Your task to perform on an android device: change the clock display to digital Image 0: 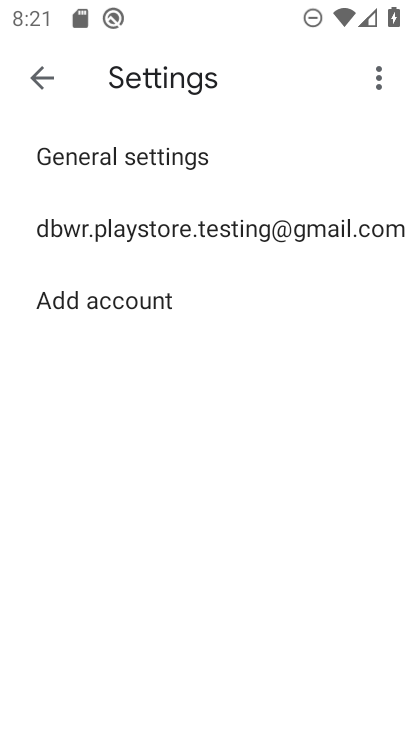
Step 0: press home button
Your task to perform on an android device: change the clock display to digital Image 1: 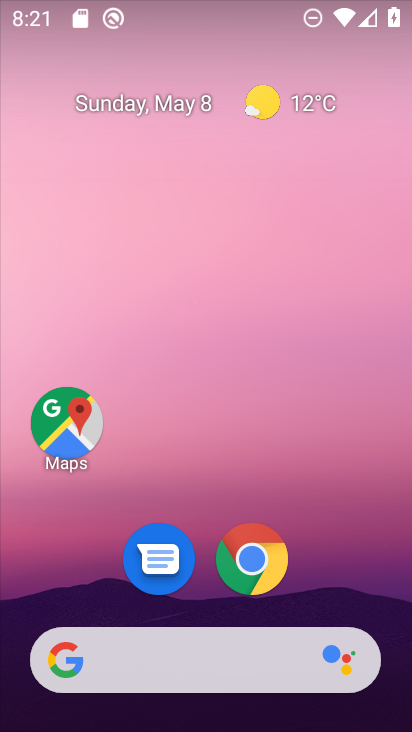
Step 1: drag from (354, 584) to (378, 56)
Your task to perform on an android device: change the clock display to digital Image 2: 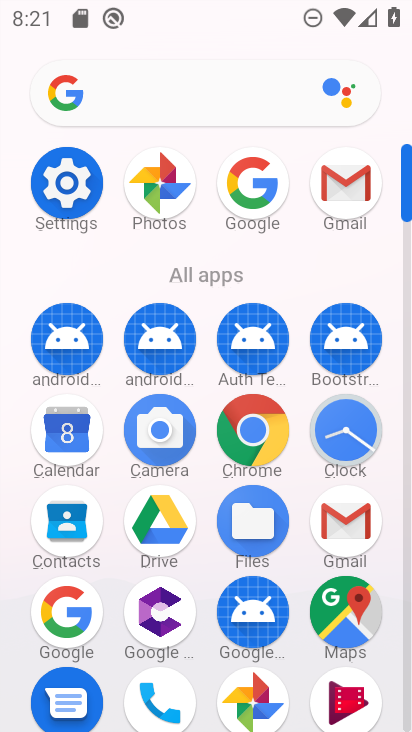
Step 2: click (345, 451)
Your task to perform on an android device: change the clock display to digital Image 3: 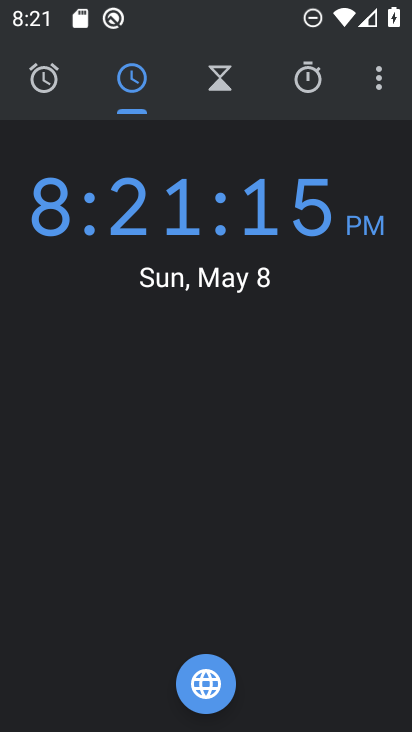
Step 3: click (378, 90)
Your task to perform on an android device: change the clock display to digital Image 4: 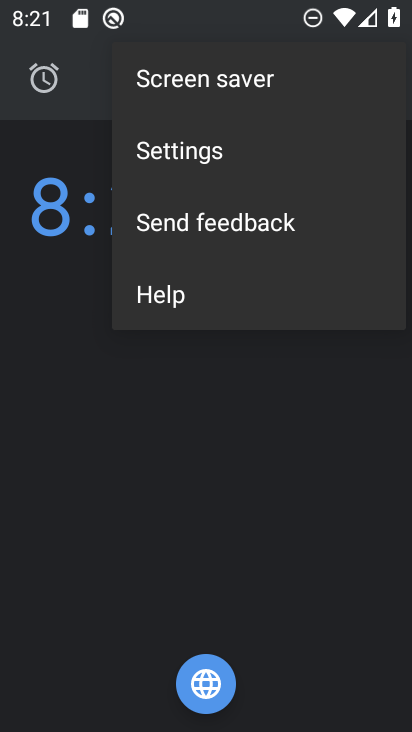
Step 4: click (196, 143)
Your task to perform on an android device: change the clock display to digital Image 5: 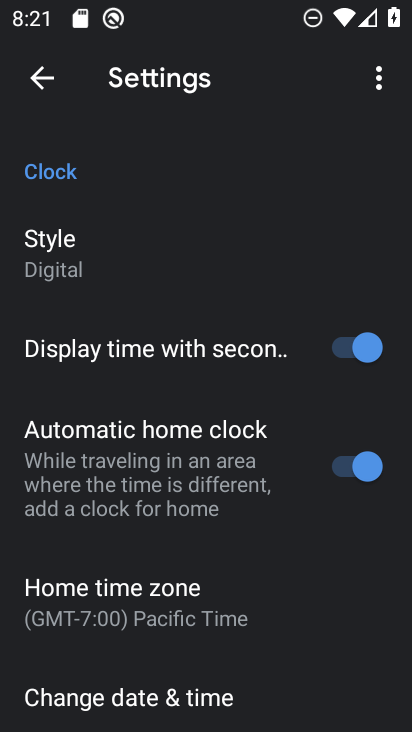
Step 5: task complete